Your task to perform on an android device: Go to ESPN.com Image 0: 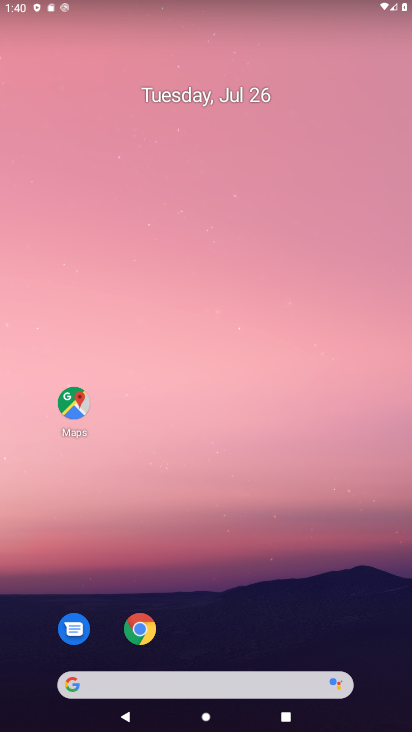
Step 0: click (142, 632)
Your task to perform on an android device: Go to ESPN.com Image 1: 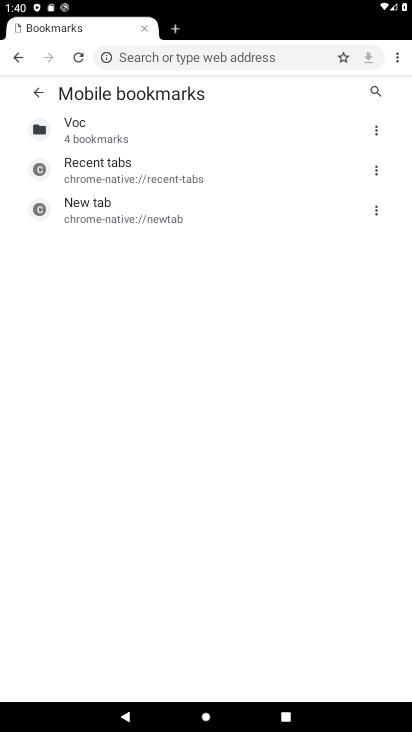
Step 1: click (191, 55)
Your task to perform on an android device: Go to ESPN.com Image 2: 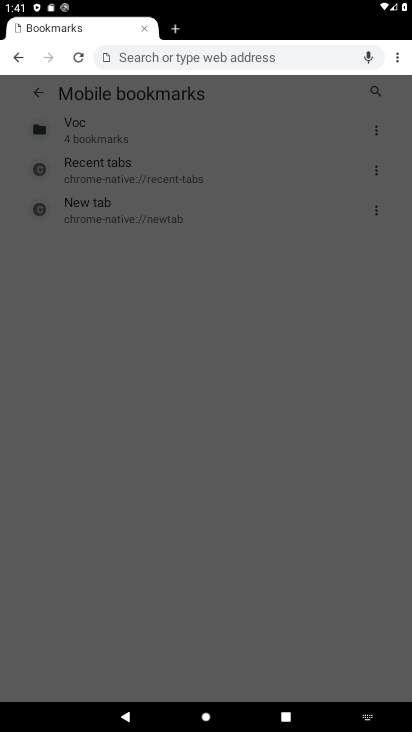
Step 2: type "ESPN.com"
Your task to perform on an android device: Go to ESPN.com Image 3: 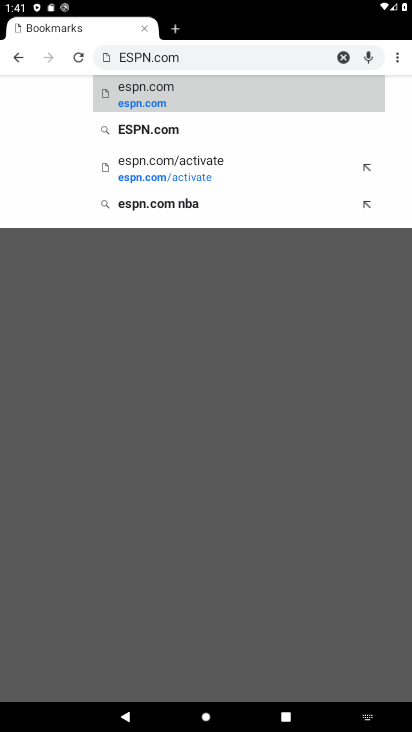
Step 3: click (150, 88)
Your task to perform on an android device: Go to ESPN.com Image 4: 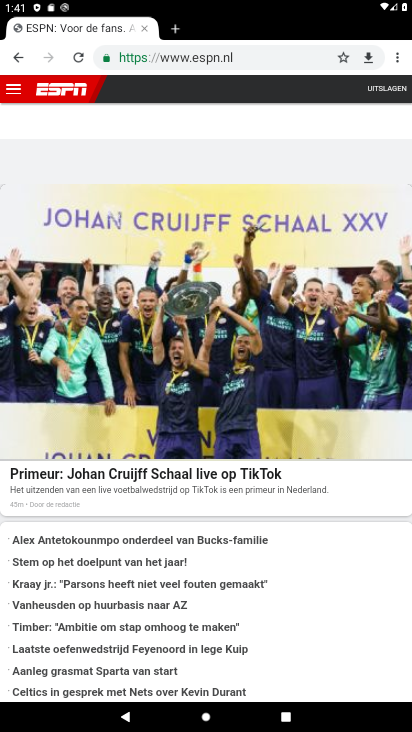
Step 4: drag from (308, 609) to (328, 235)
Your task to perform on an android device: Go to ESPN.com Image 5: 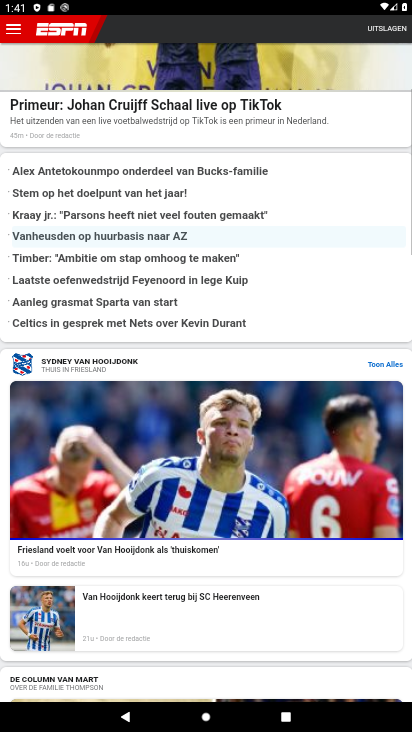
Step 5: drag from (312, 606) to (288, 140)
Your task to perform on an android device: Go to ESPN.com Image 6: 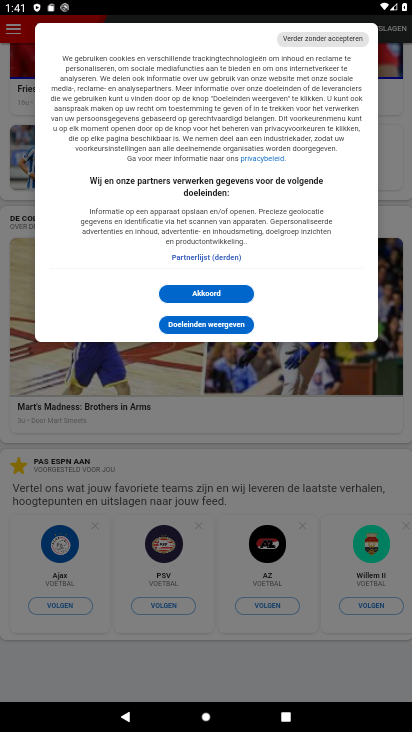
Step 6: click (199, 294)
Your task to perform on an android device: Go to ESPN.com Image 7: 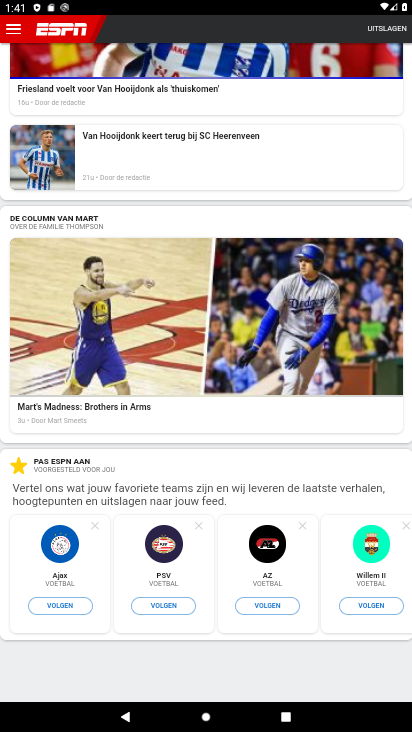
Step 7: task complete